Your task to perform on an android device: Search for flights from Sydney to Buenos aires Image 0: 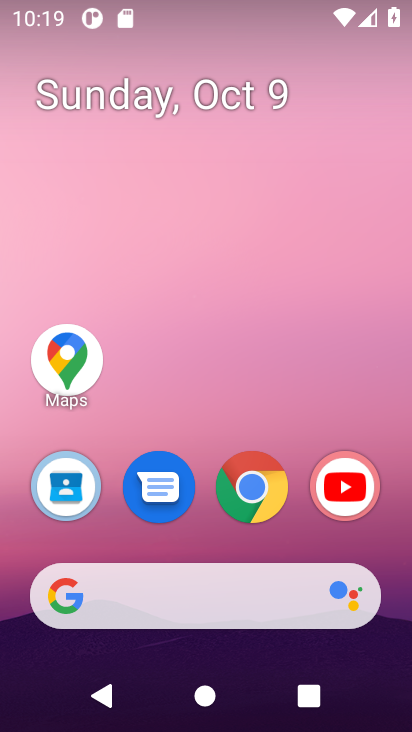
Step 0: click (265, 501)
Your task to perform on an android device: Search for flights from Sydney to Buenos aires Image 1: 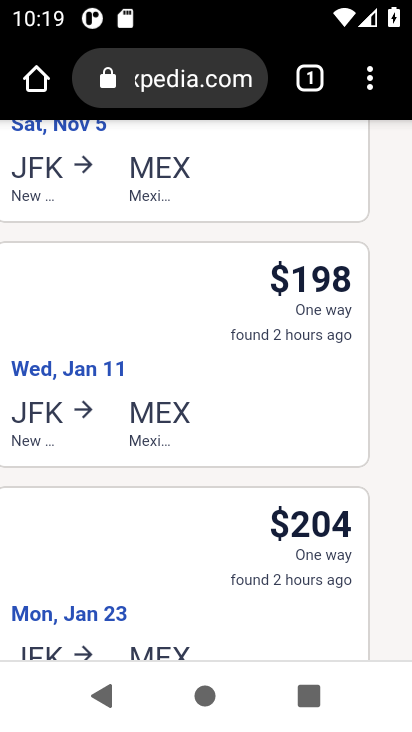
Step 1: click (183, 97)
Your task to perform on an android device: Search for flights from Sydney to Buenos aires Image 2: 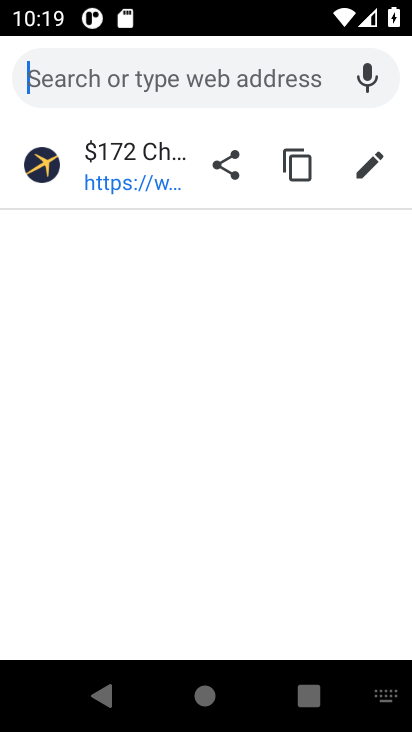
Step 2: type "flights from sydney to buenos aires"
Your task to perform on an android device: Search for flights from Sydney to Buenos aires Image 3: 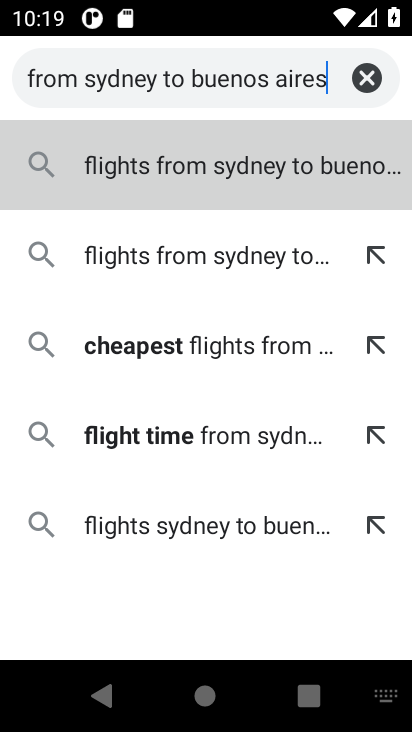
Step 3: press enter
Your task to perform on an android device: Search for flights from Sydney to Buenos aires Image 4: 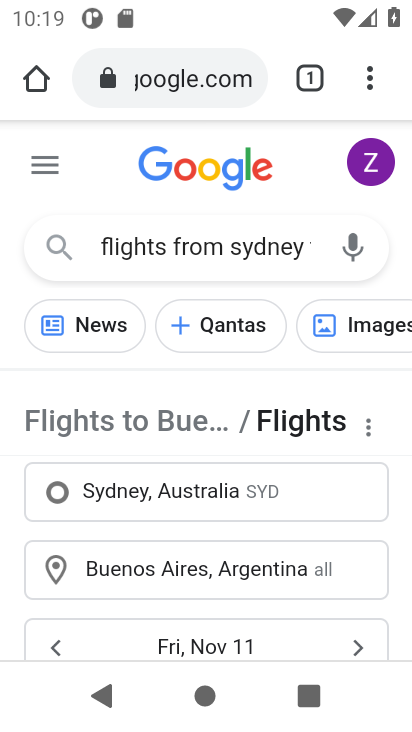
Step 4: drag from (250, 535) to (232, 159)
Your task to perform on an android device: Search for flights from Sydney to Buenos aires Image 5: 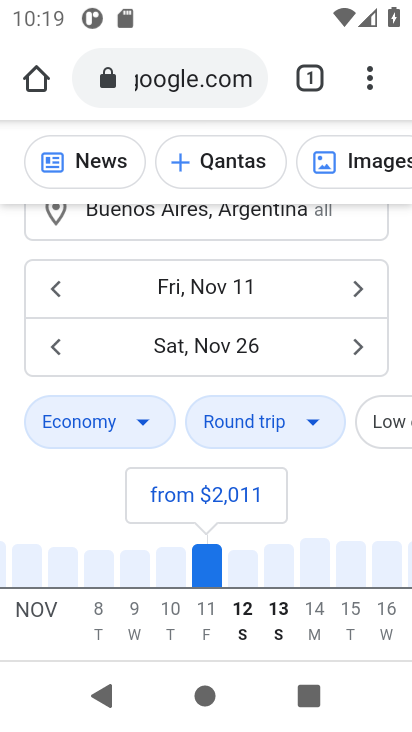
Step 5: drag from (302, 527) to (283, 164)
Your task to perform on an android device: Search for flights from Sydney to Buenos aires Image 6: 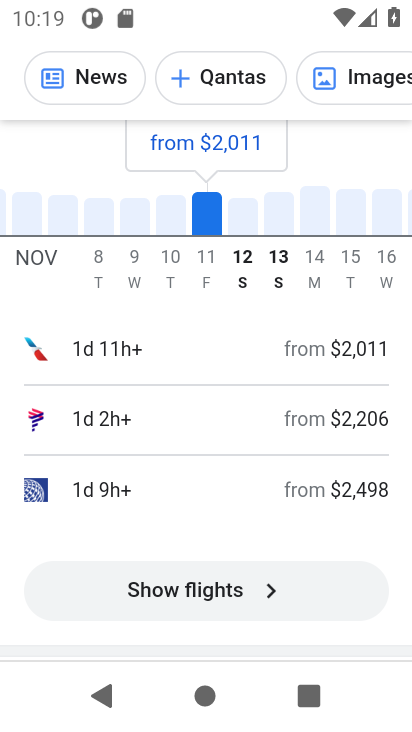
Step 6: drag from (270, 547) to (274, 285)
Your task to perform on an android device: Search for flights from Sydney to Buenos aires Image 7: 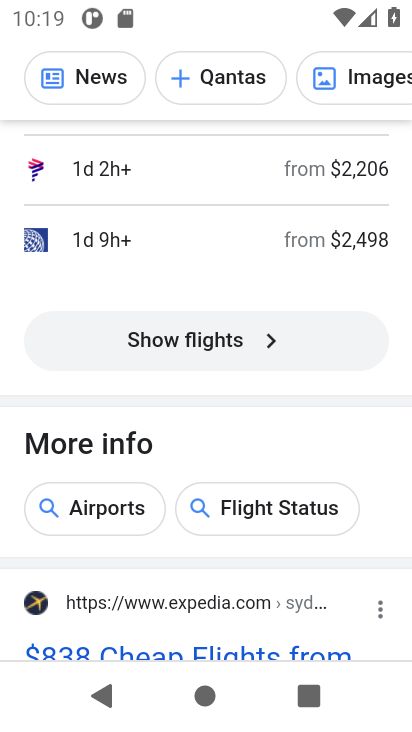
Step 7: drag from (304, 579) to (299, 288)
Your task to perform on an android device: Search for flights from Sydney to Buenos aires Image 8: 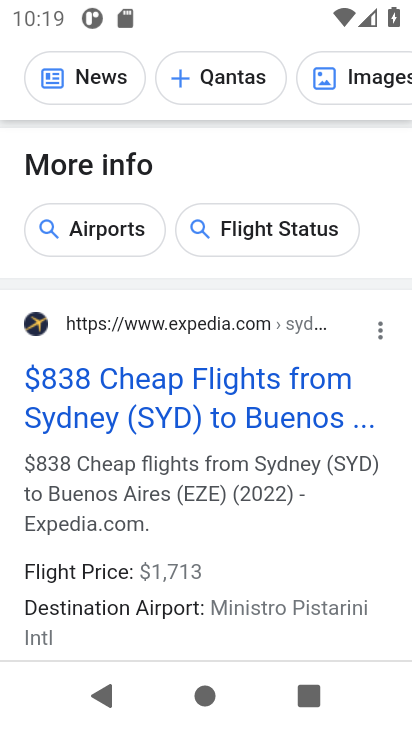
Step 8: drag from (267, 306) to (292, 503)
Your task to perform on an android device: Search for flights from Sydney to Buenos aires Image 9: 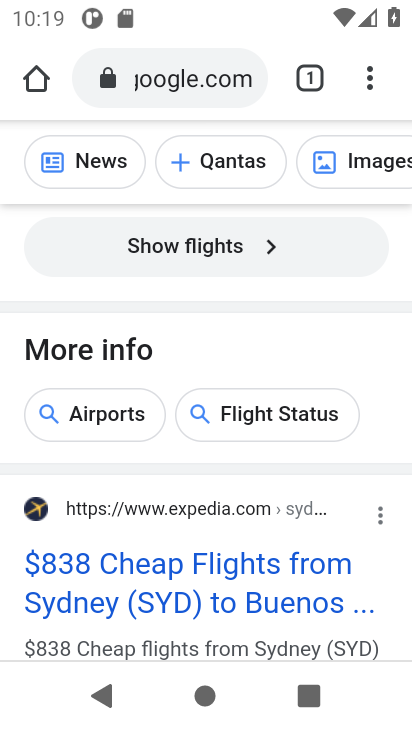
Step 9: click (244, 241)
Your task to perform on an android device: Search for flights from Sydney to Buenos aires Image 10: 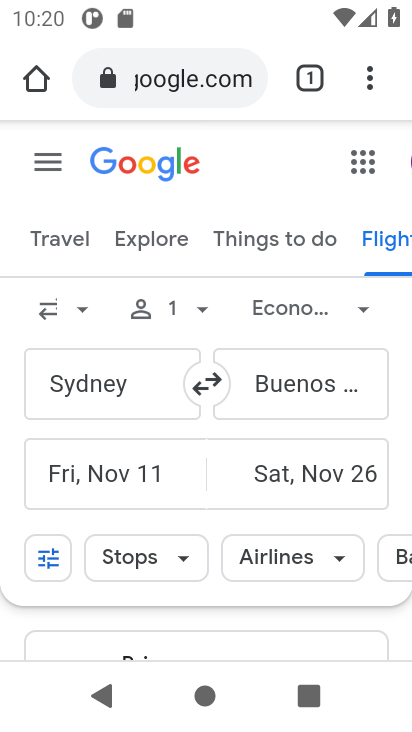
Step 10: task complete